Your task to perform on an android device: Go to accessibility settings Image 0: 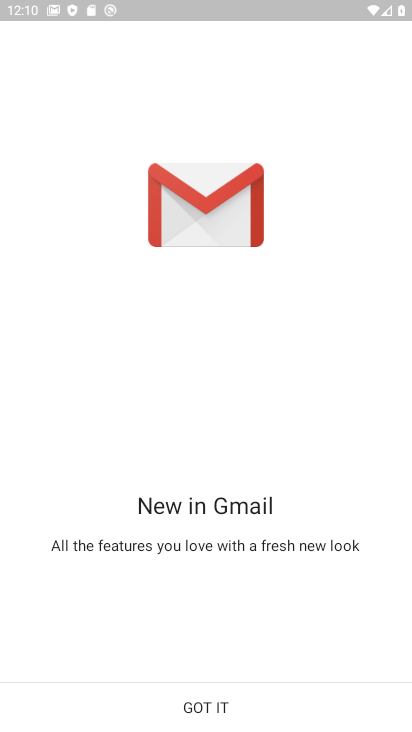
Step 0: press home button
Your task to perform on an android device: Go to accessibility settings Image 1: 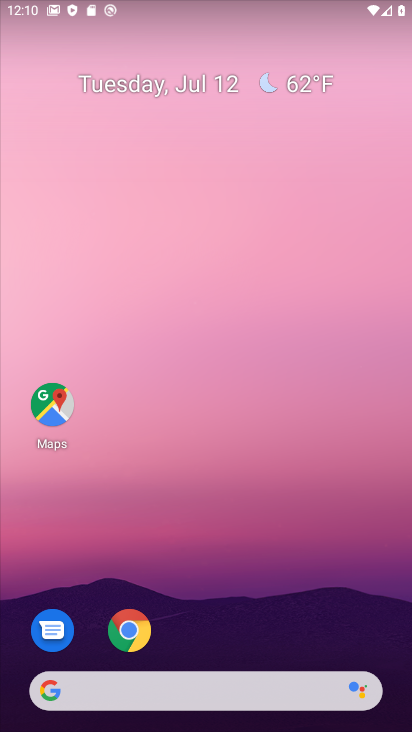
Step 1: drag from (249, 547) to (208, 93)
Your task to perform on an android device: Go to accessibility settings Image 2: 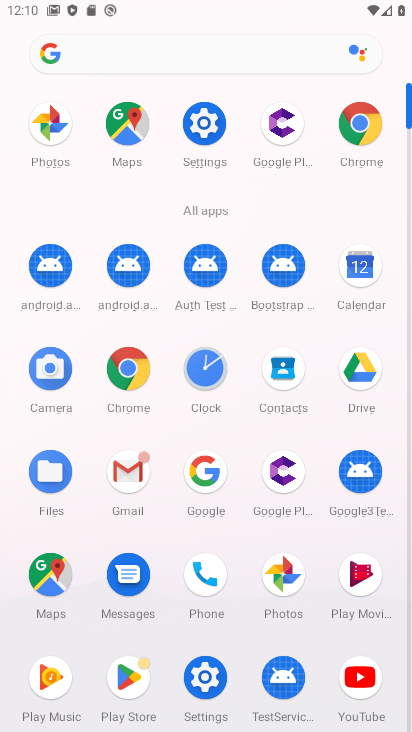
Step 2: click (201, 119)
Your task to perform on an android device: Go to accessibility settings Image 3: 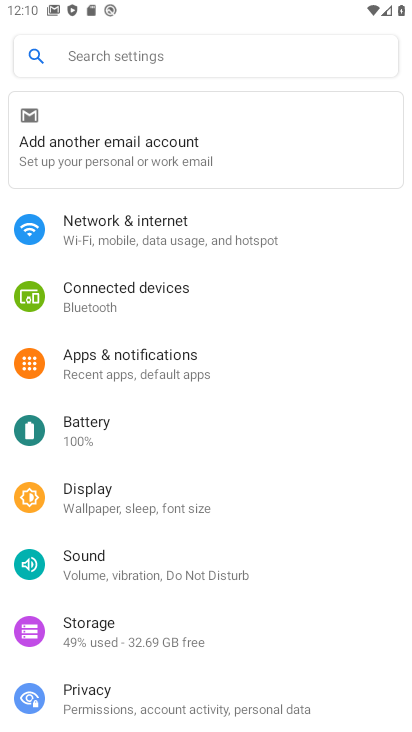
Step 3: drag from (205, 633) to (199, 295)
Your task to perform on an android device: Go to accessibility settings Image 4: 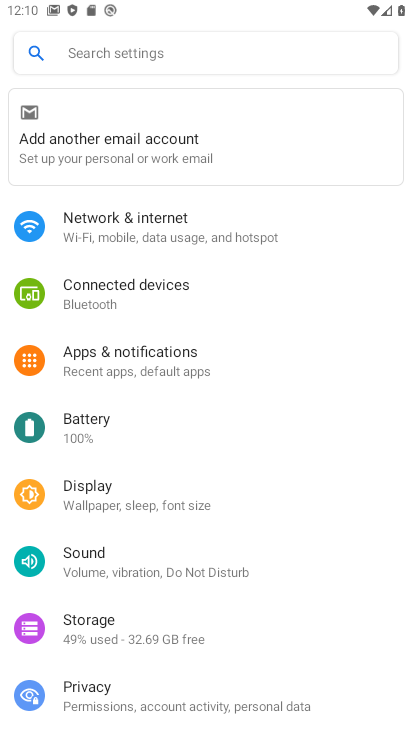
Step 4: drag from (227, 590) to (211, 287)
Your task to perform on an android device: Go to accessibility settings Image 5: 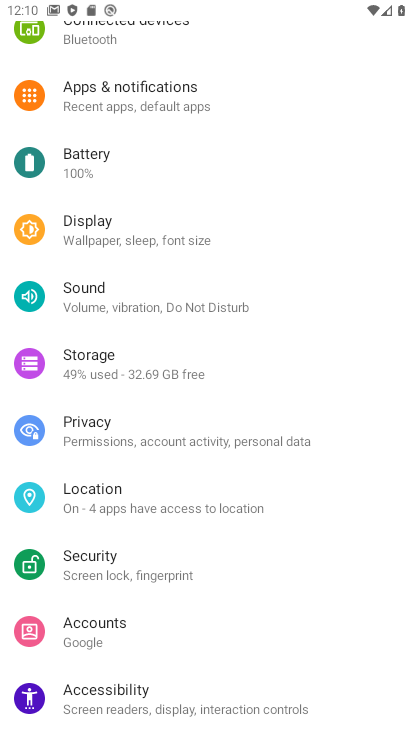
Step 5: click (105, 692)
Your task to perform on an android device: Go to accessibility settings Image 6: 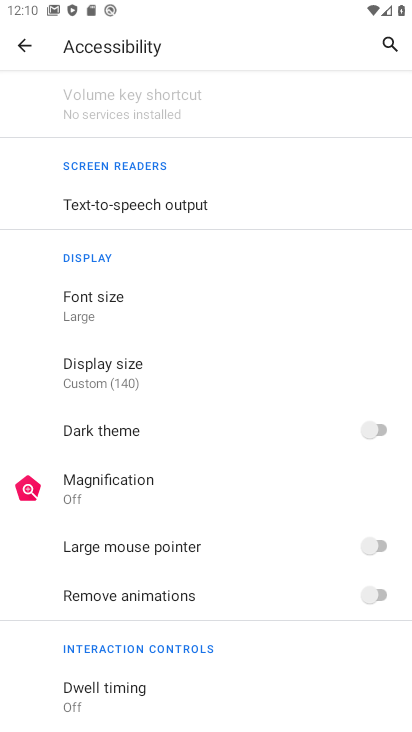
Step 6: task complete